Your task to perform on an android device: change your default location settings in chrome Image 0: 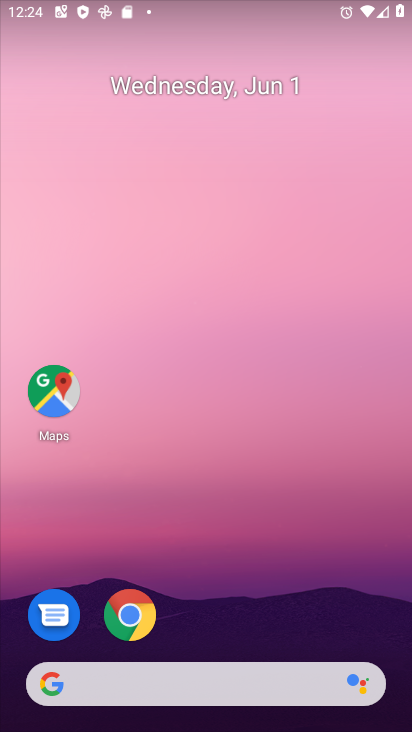
Step 0: drag from (274, 662) to (205, 87)
Your task to perform on an android device: change your default location settings in chrome Image 1: 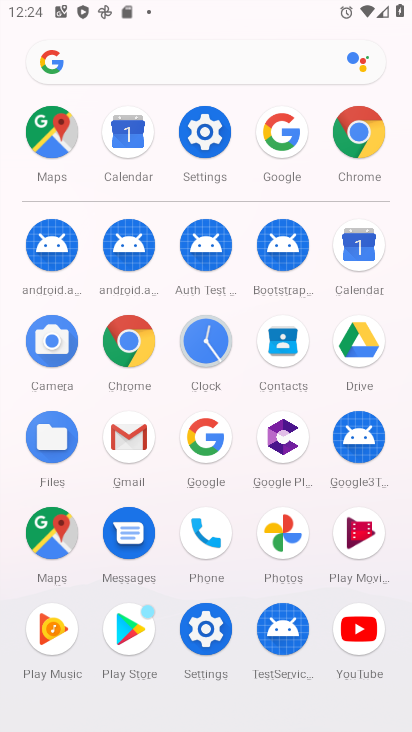
Step 1: click (348, 143)
Your task to perform on an android device: change your default location settings in chrome Image 2: 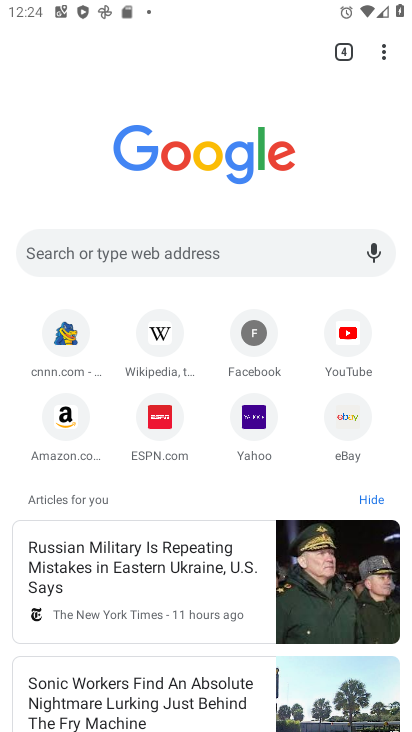
Step 2: drag from (383, 66) to (248, 429)
Your task to perform on an android device: change your default location settings in chrome Image 3: 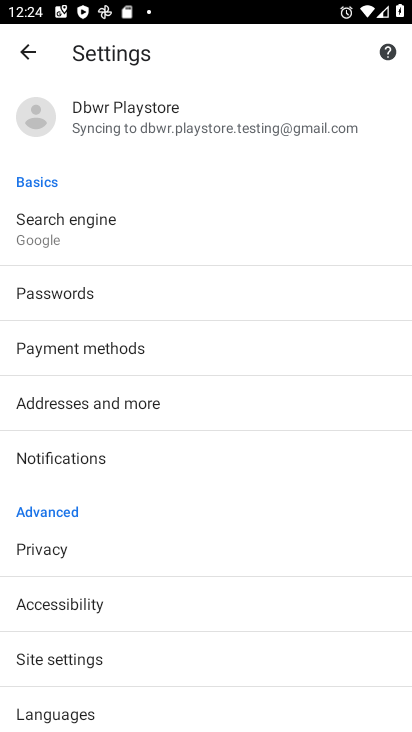
Step 3: click (53, 225)
Your task to perform on an android device: change your default location settings in chrome Image 4: 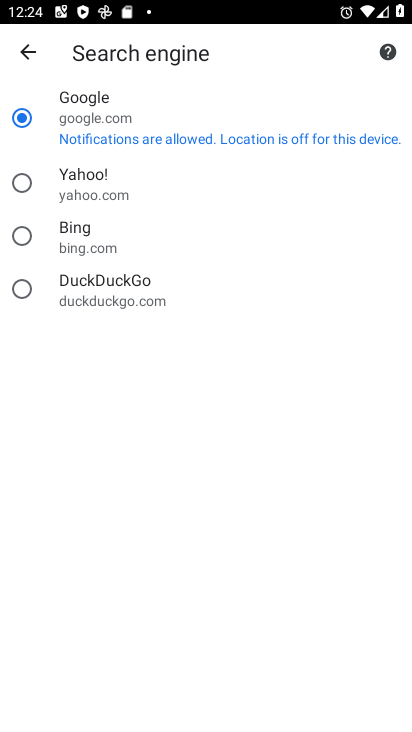
Step 4: task complete